Your task to perform on an android device: make emails show in primary in the gmail app Image 0: 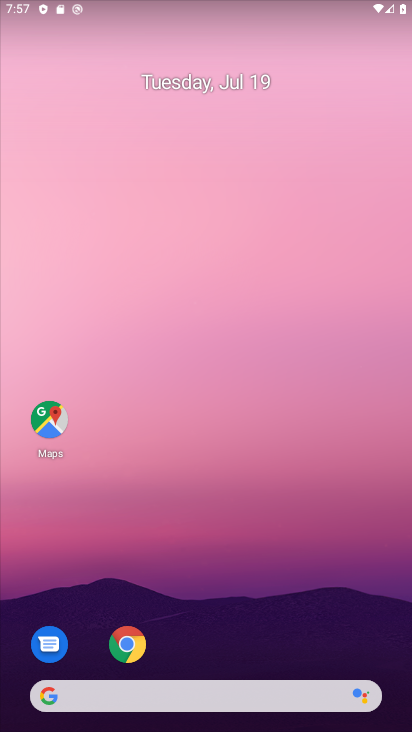
Step 0: drag from (259, 655) to (190, 79)
Your task to perform on an android device: make emails show in primary in the gmail app Image 1: 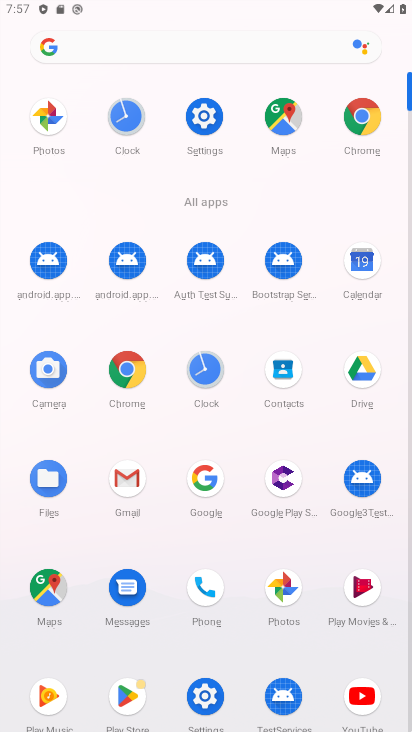
Step 1: click (139, 480)
Your task to perform on an android device: make emails show in primary in the gmail app Image 2: 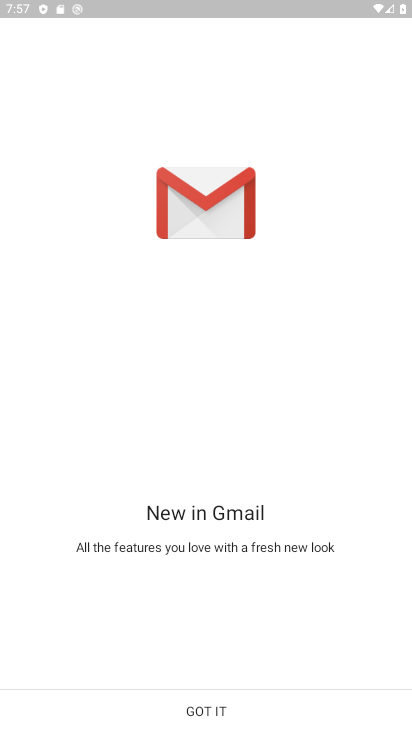
Step 2: click (220, 713)
Your task to perform on an android device: make emails show in primary in the gmail app Image 3: 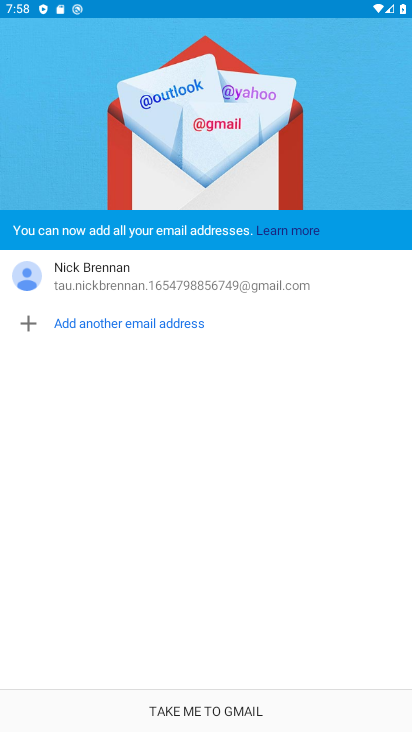
Step 3: click (227, 701)
Your task to perform on an android device: make emails show in primary in the gmail app Image 4: 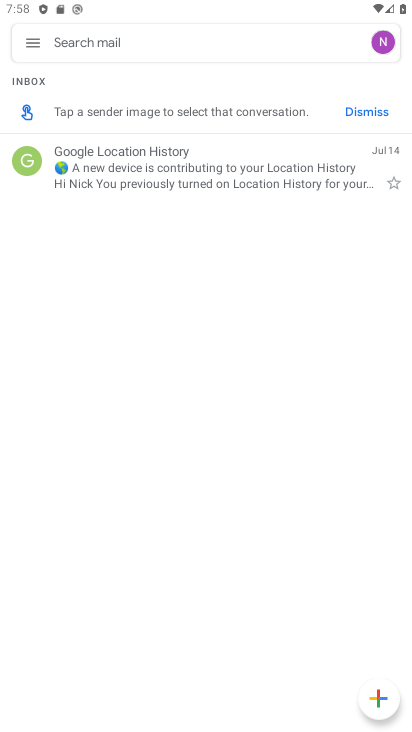
Step 4: click (31, 34)
Your task to perform on an android device: make emails show in primary in the gmail app Image 5: 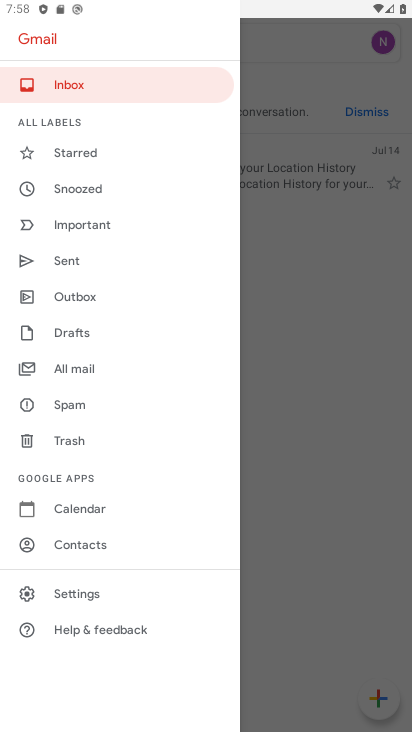
Step 5: click (110, 584)
Your task to perform on an android device: make emails show in primary in the gmail app Image 6: 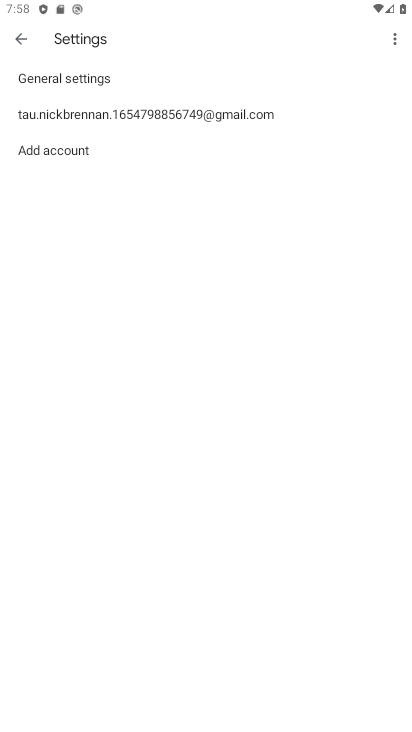
Step 6: click (190, 113)
Your task to perform on an android device: make emails show in primary in the gmail app Image 7: 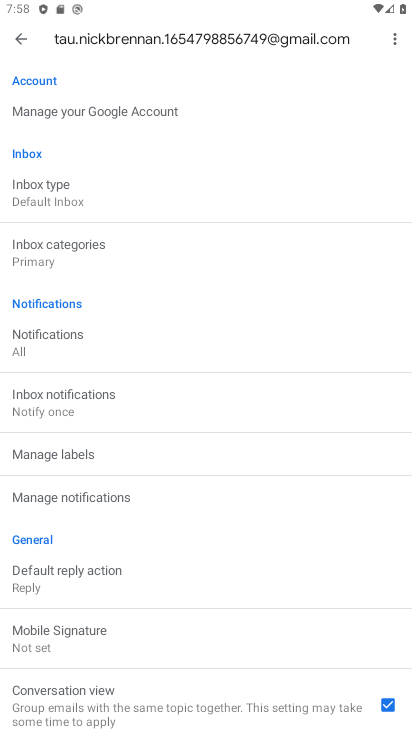
Step 7: click (108, 198)
Your task to perform on an android device: make emails show in primary in the gmail app Image 8: 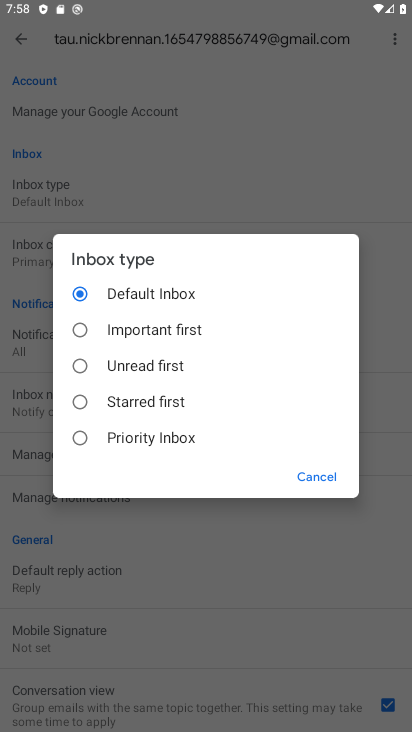
Step 8: click (128, 293)
Your task to perform on an android device: make emails show in primary in the gmail app Image 9: 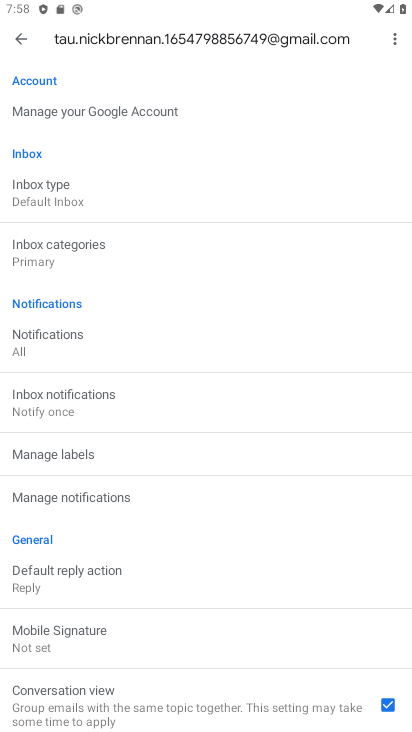
Step 9: task complete